Your task to perform on an android device: Open the stopwatch Image 0: 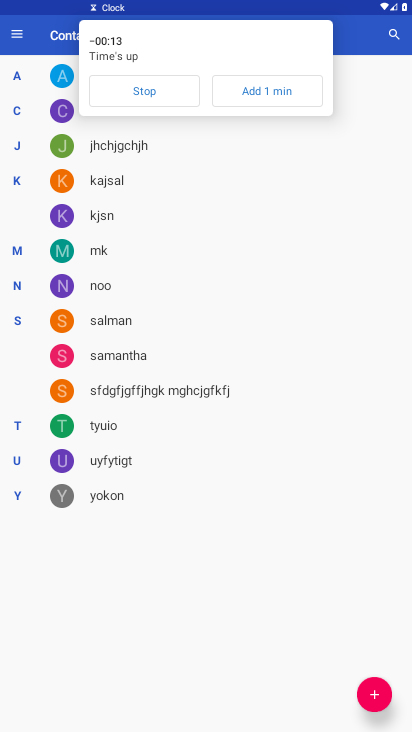
Step 0: press home button
Your task to perform on an android device: Open the stopwatch Image 1: 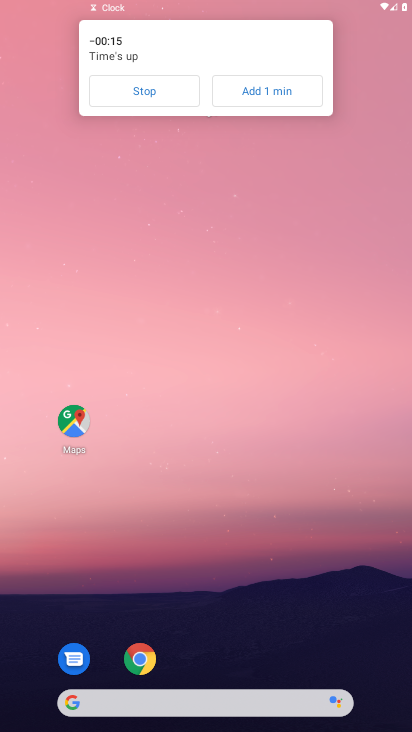
Step 1: click (157, 84)
Your task to perform on an android device: Open the stopwatch Image 2: 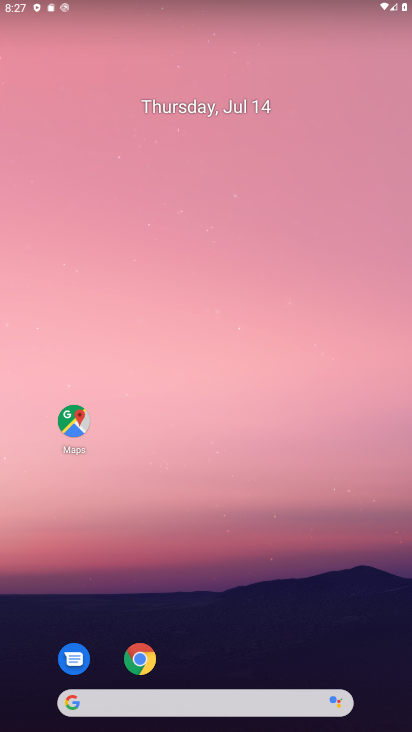
Step 2: drag from (192, 667) to (164, 123)
Your task to perform on an android device: Open the stopwatch Image 3: 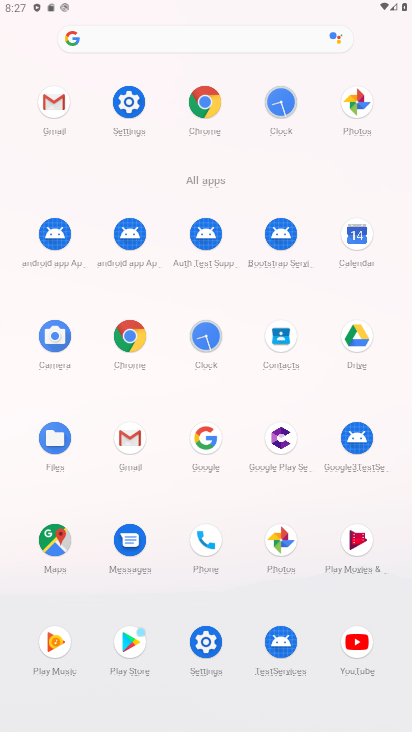
Step 3: click (200, 346)
Your task to perform on an android device: Open the stopwatch Image 4: 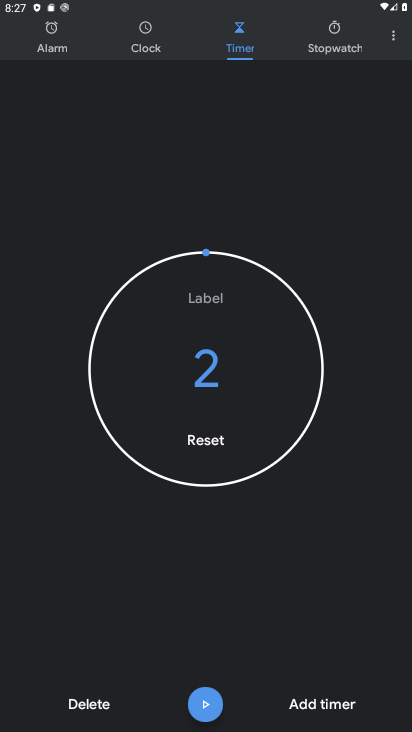
Step 4: click (333, 28)
Your task to perform on an android device: Open the stopwatch Image 5: 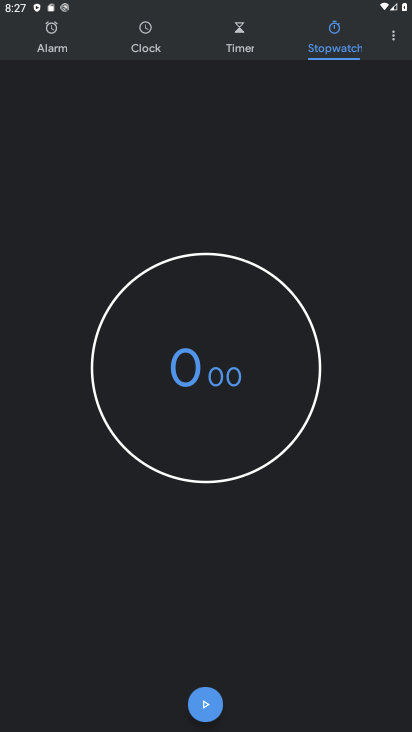
Step 5: click (198, 692)
Your task to perform on an android device: Open the stopwatch Image 6: 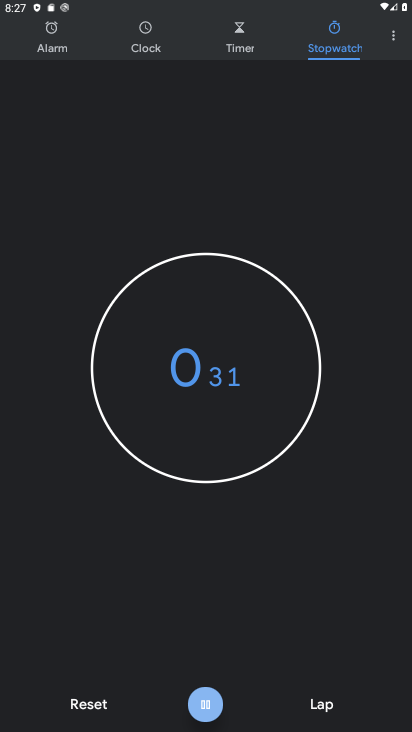
Step 6: click (198, 692)
Your task to perform on an android device: Open the stopwatch Image 7: 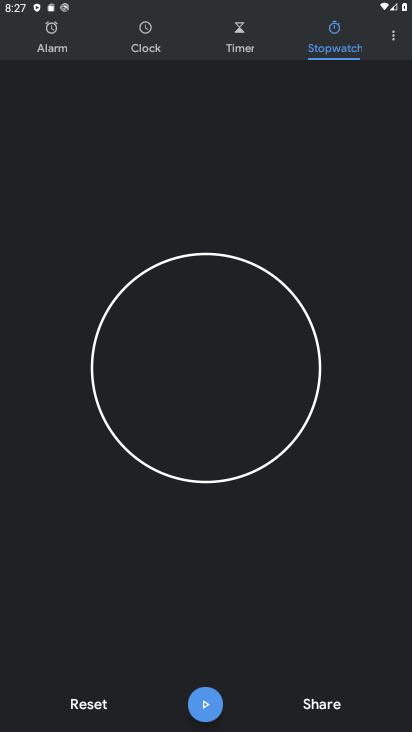
Step 7: click (198, 692)
Your task to perform on an android device: Open the stopwatch Image 8: 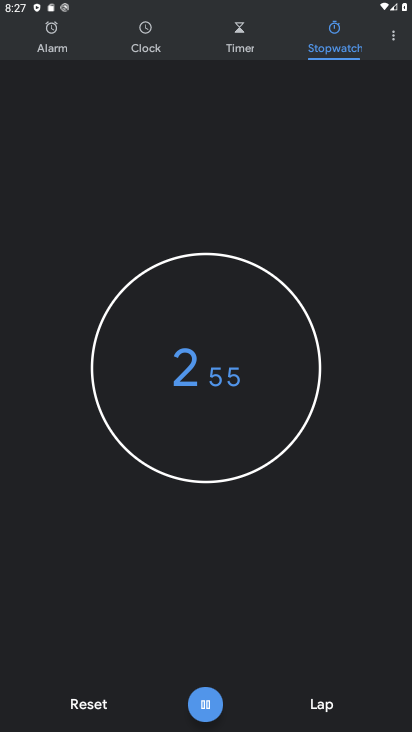
Step 8: task complete